Your task to perform on an android device: toggle notifications settings in the gmail app Image 0: 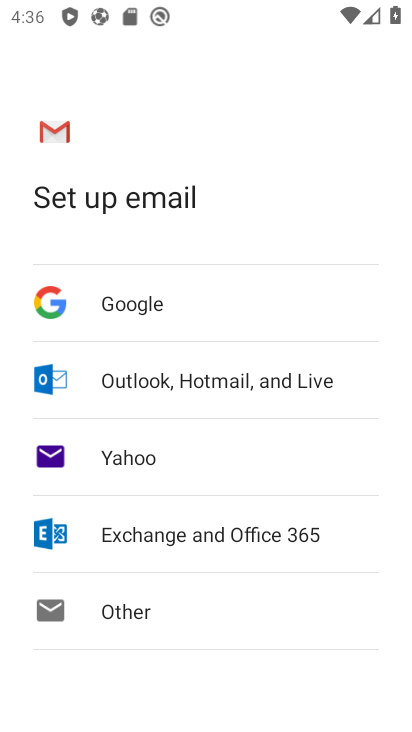
Step 0: press home button
Your task to perform on an android device: toggle notifications settings in the gmail app Image 1: 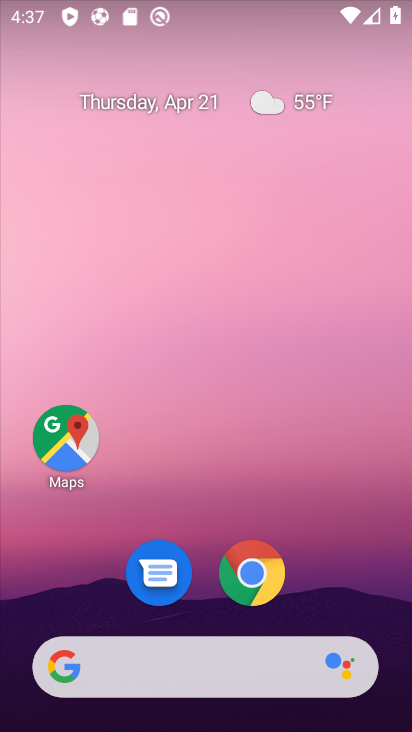
Step 1: drag from (388, 576) to (266, 139)
Your task to perform on an android device: toggle notifications settings in the gmail app Image 2: 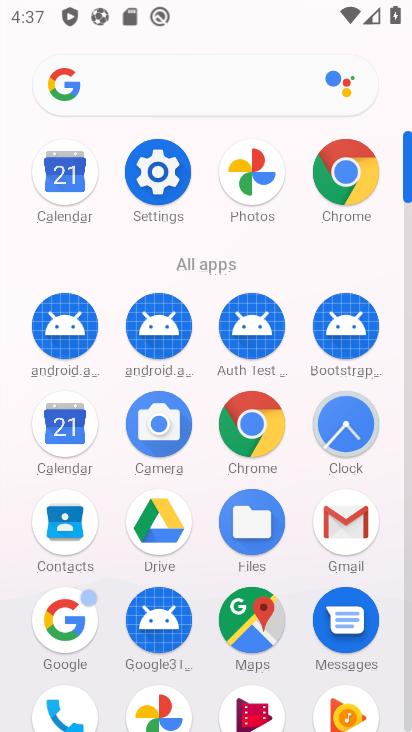
Step 2: click (355, 512)
Your task to perform on an android device: toggle notifications settings in the gmail app Image 3: 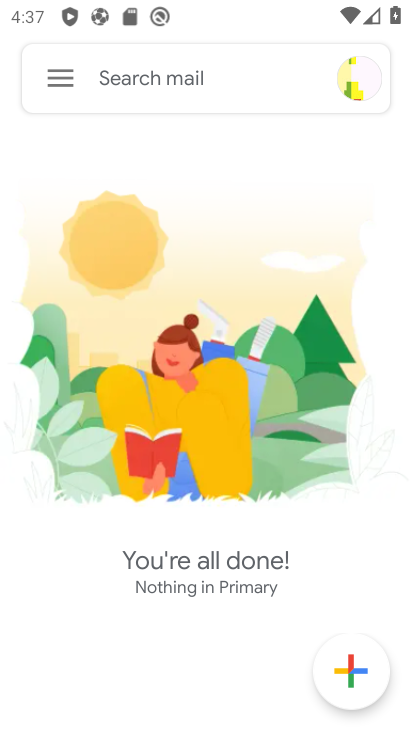
Step 3: click (49, 96)
Your task to perform on an android device: toggle notifications settings in the gmail app Image 4: 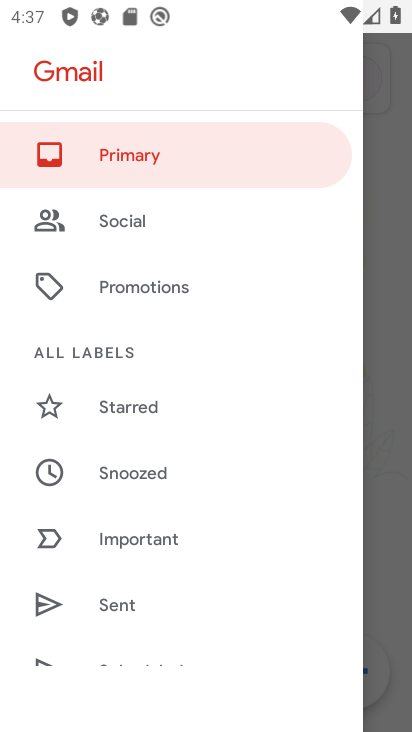
Step 4: drag from (261, 626) to (236, 262)
Your task to perform on an android device: toggle notifications settings in the gmail app Image 5: 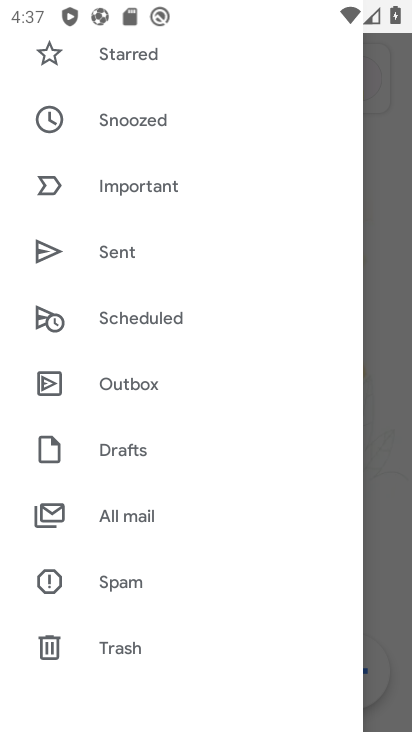
Step 5: drag from (263, 568) to (229, 242)
Your task to perform on an android device: toggle notifications settings in the gmail app Image 6: 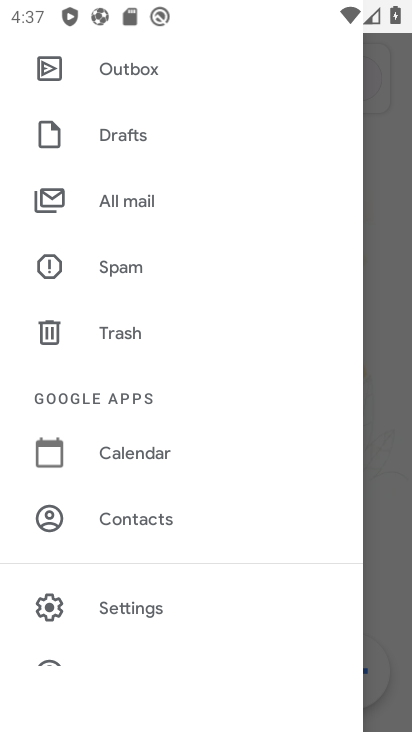
Step 6: click (230, 618)
Your task to perform on an android device: toggle notifications settings in the gmail app Image 7: 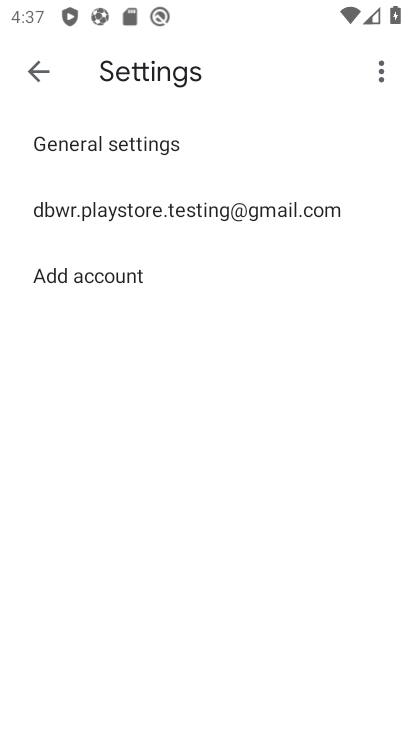
Step 7: click (291, 218)
Your task to perform on an android device: toggle notifications settings in the gmail app Image 8: 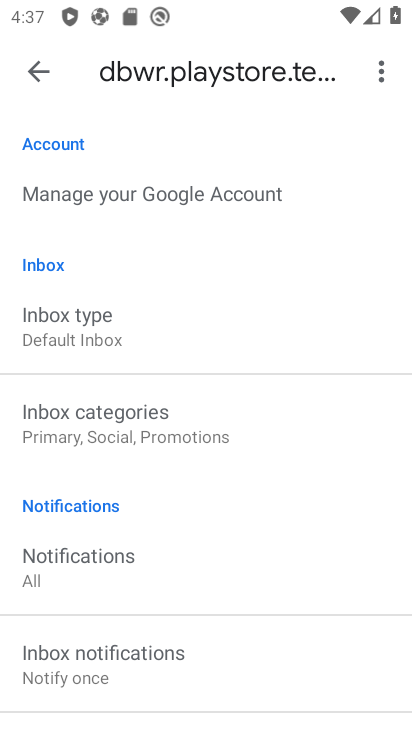
Step 8: drag from (265, 604) to (217, 272)
Your task to perform on an android device: toggle notifications settings in the gmail app Image 9: 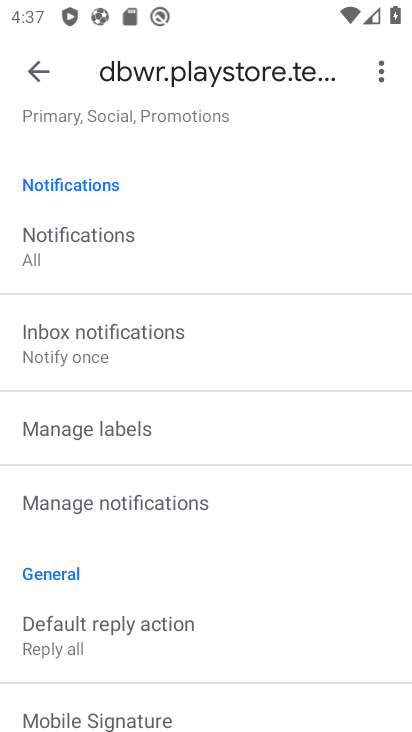
Step 9: click (246, 494)
Your task to perform on an android device: toggle notifications settings in the gmail app Image 10: 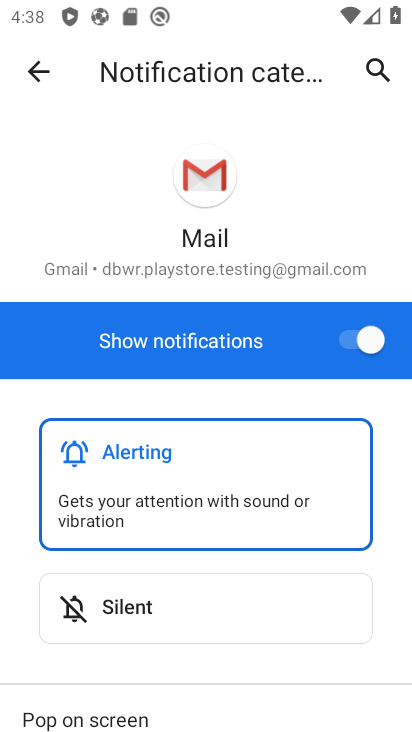
Step 10: drag from (405, 613) to (383, 474)
Your task to perform on an android device: toggle notifications settings in the gmail app Image 11: 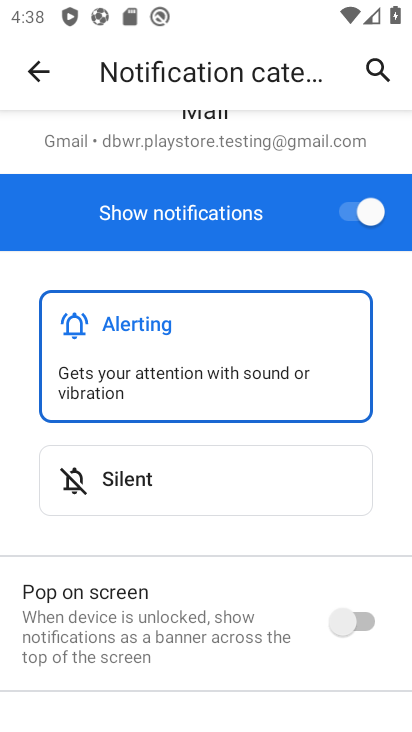
Step 11: click (330, 483)
Your task to perform on an android device: toggle notifications settings in the gmail app Image 12: 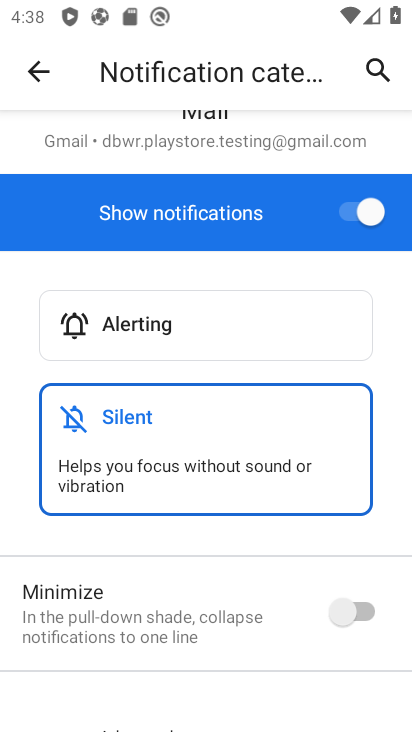
Step 12: click (366, 610)
Your task to perform on an android device: toggle notifications settings in the gmail app Image 13: 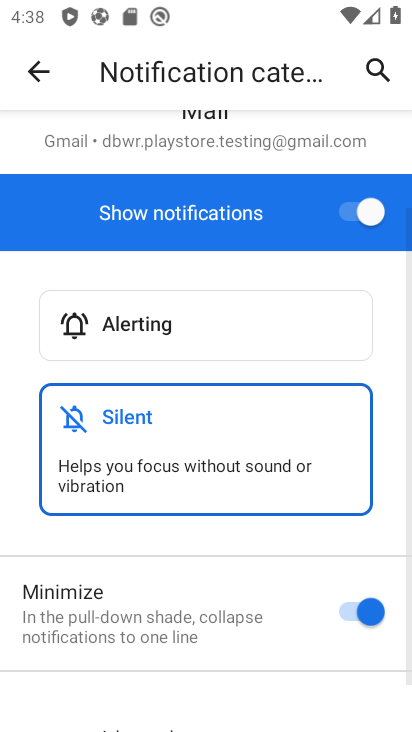
Step 13: task complete